Your task to perform on an android device: Check the news Image 0: 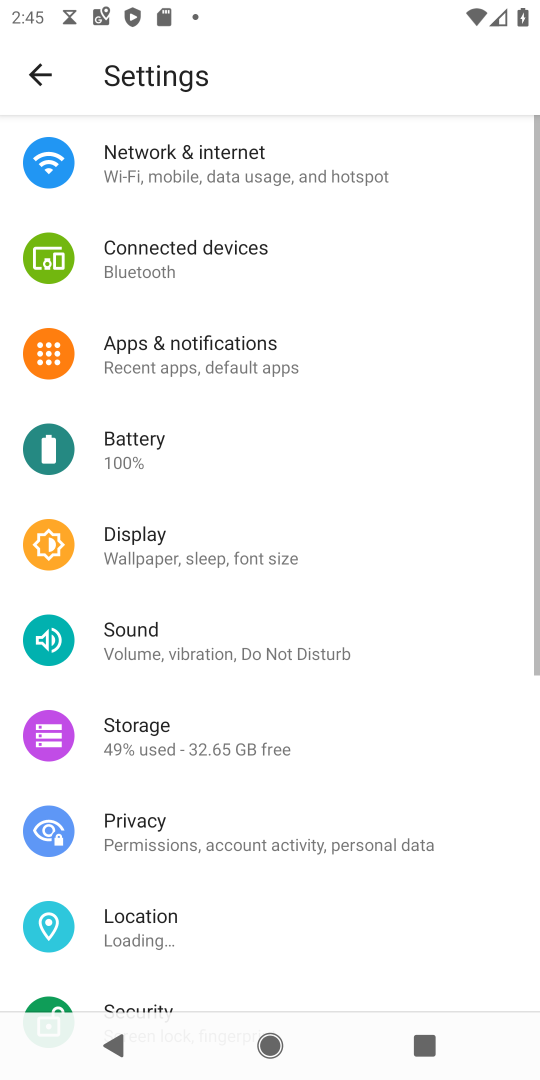
Step 0: press home button
Your task to perform on an android device: Check the news Image 1: 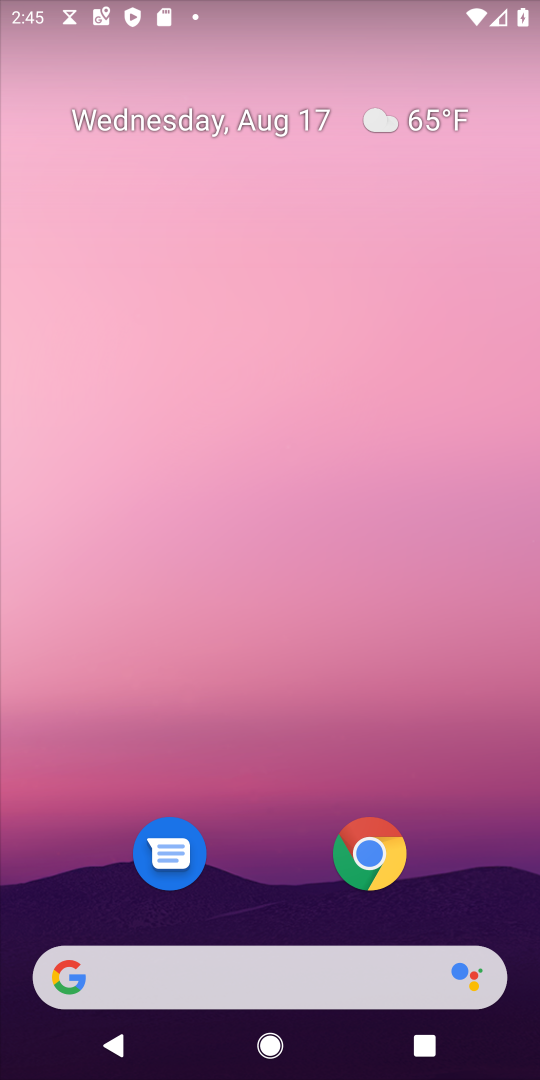
Step 1: drag from (291, 888) to (261, 54)
Your task to perform on an android device: Check the news Image 2: 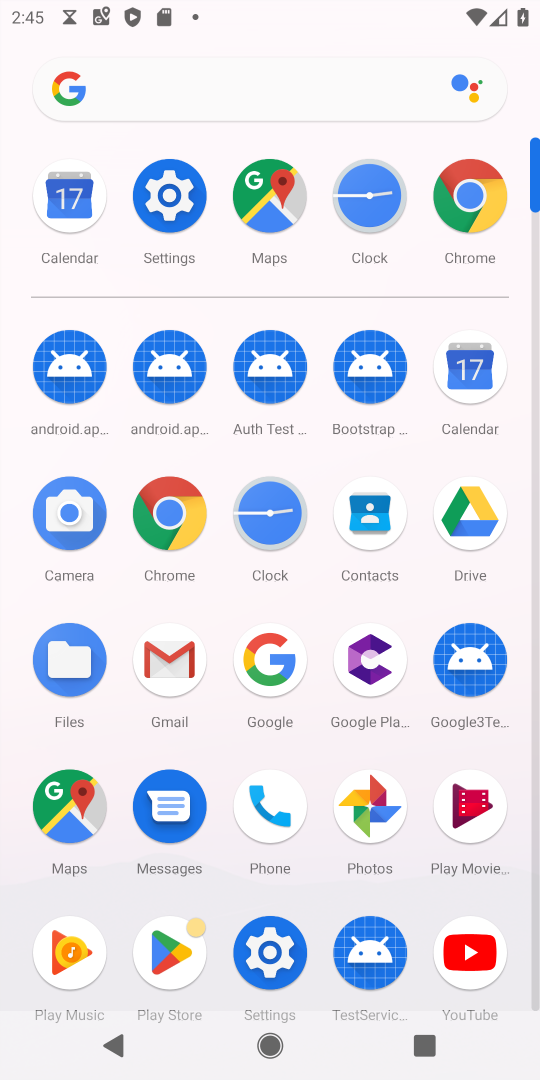
Step 2: click (166, 500)
Your task to perform on an android device: Check the news Image 3: 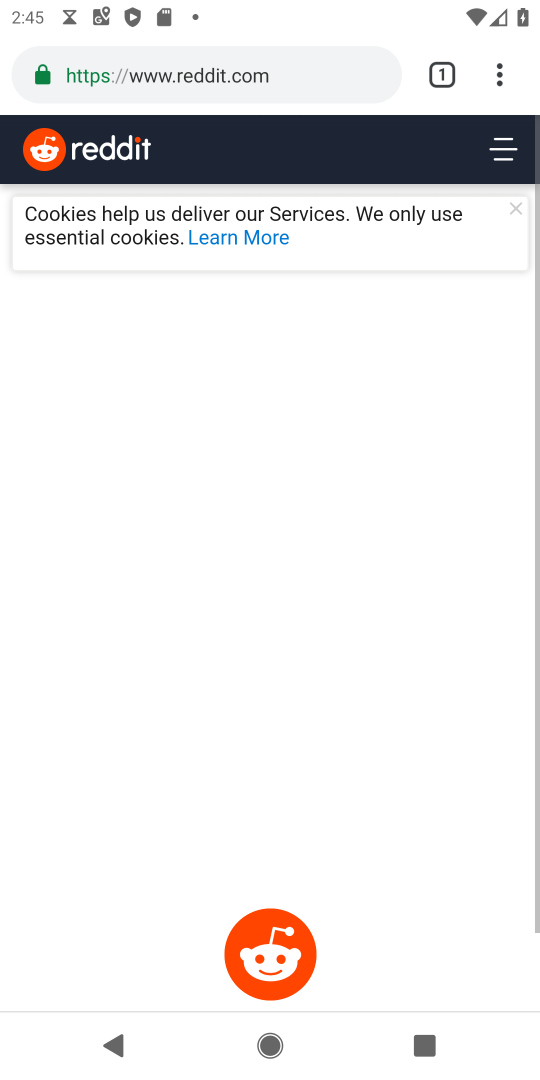
Step 3: click (270, 77)
Your task to perform on an android device: Check the news Image 4: 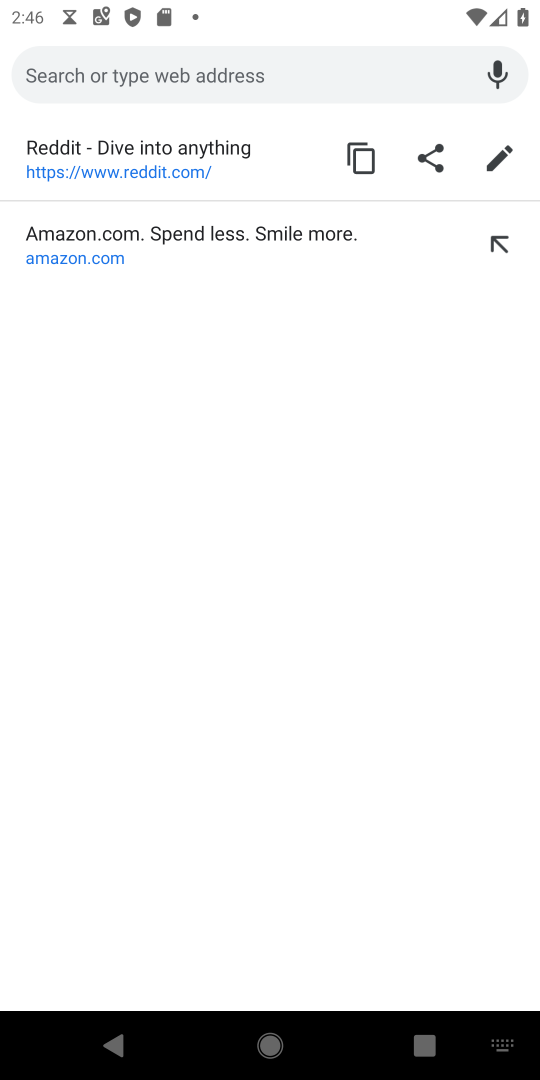
Step 4: type "Check the news"
Your task to perform on an android device: Check the news Image 5: 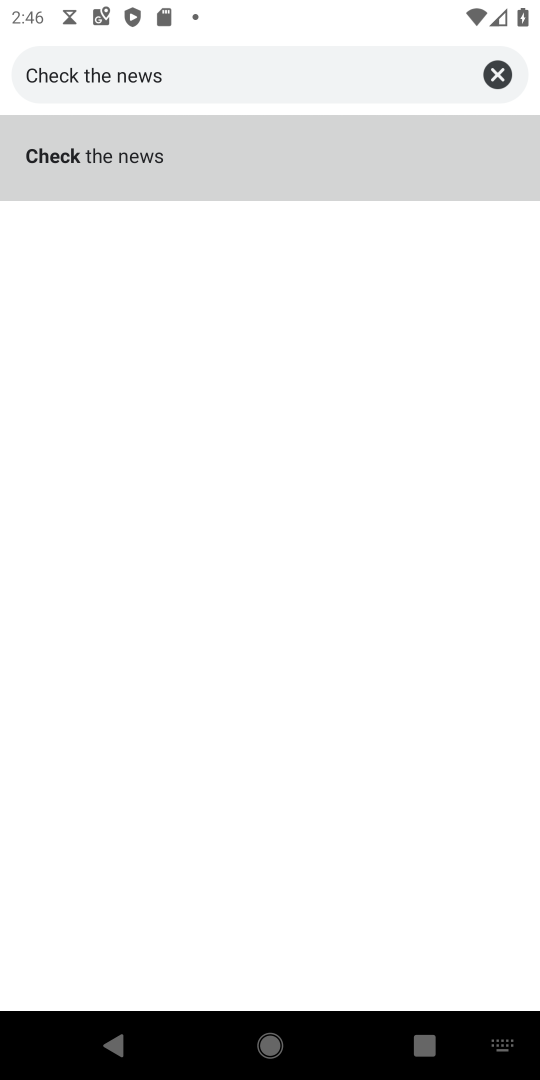
Step 5: click (62, 156)
Your task to perform on an android device: Check the news Image 6: 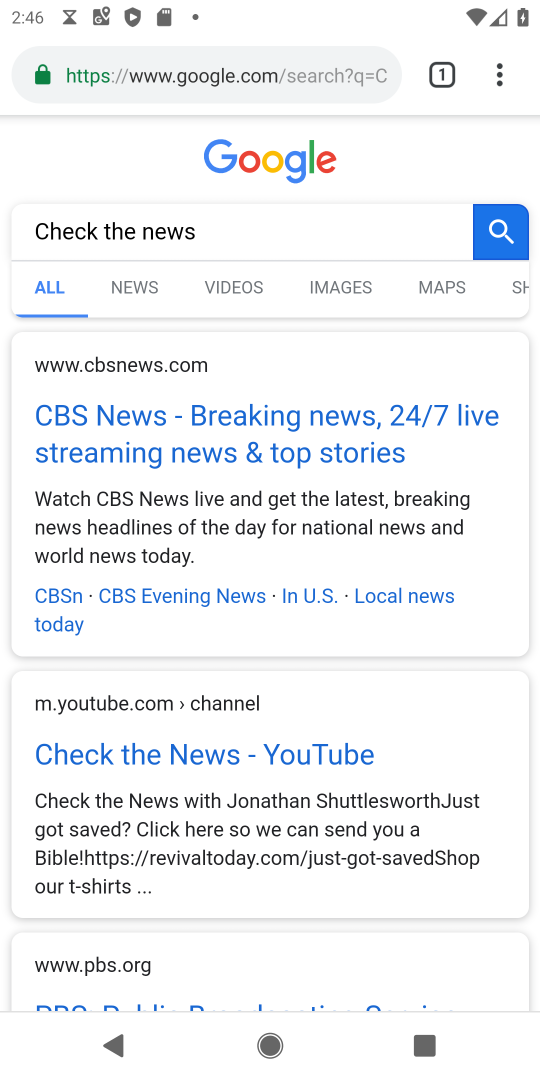
Step 6: click (126, 282)
Your task to perform on an android device: Check the news Image 7: 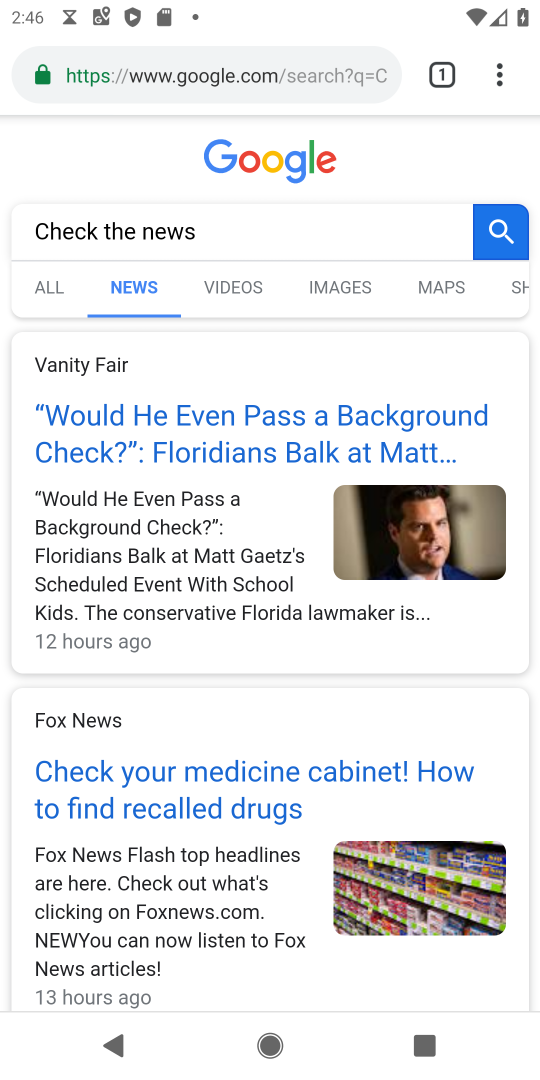
Step 7: task complete